Your task to perform on an android device: Open the web browser Image 0: 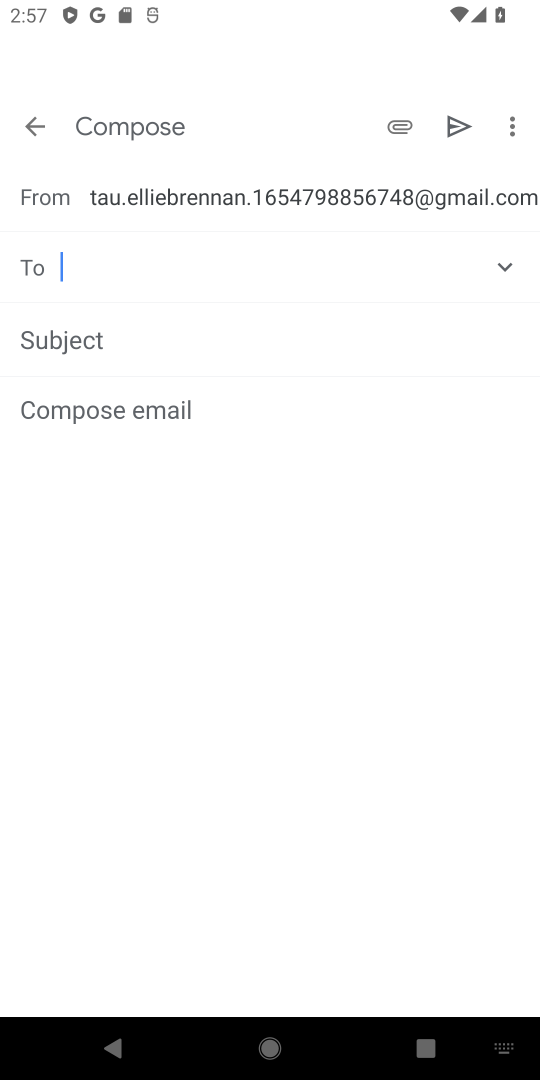
Step 0: press home button
Your task to perform on an android device: Open the web browser Image 1: 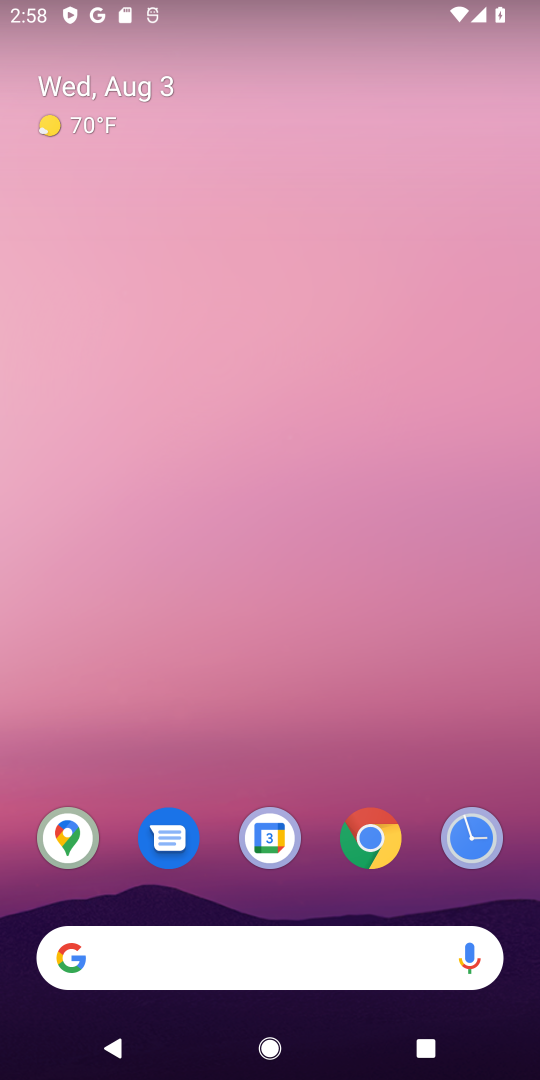
Step 1: click (363, 838)
Your task to perform on an android device: Open the web browser Image 2: 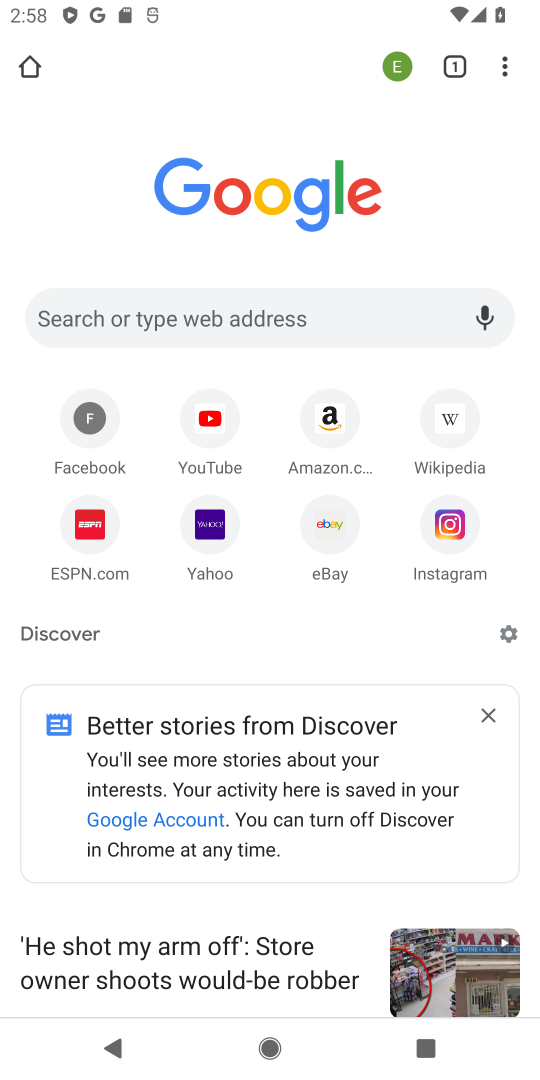
Step 2: task complete